Your task to perform on an android device: open a new tab in the chrome app Image 0: 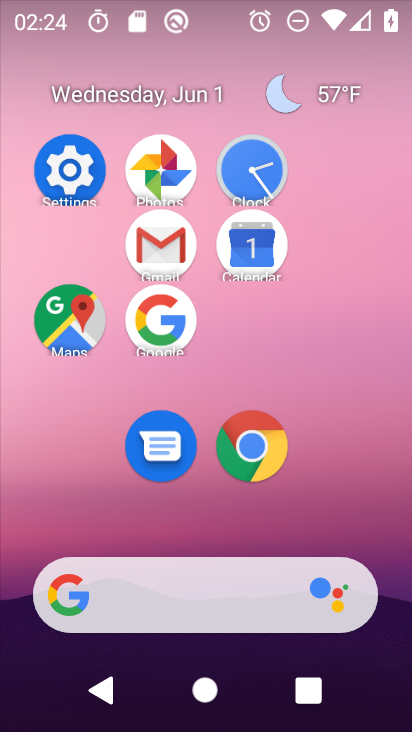
Step 0: click (280, 428)
Your task to perform on an android device: open a new tab in the chrome app Image 1: 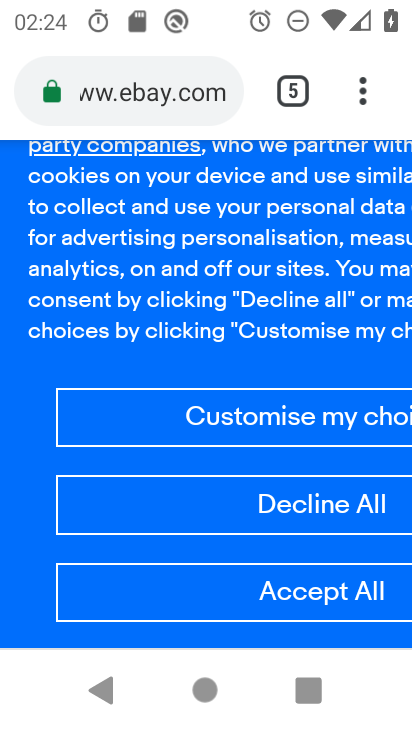
Step 1: click (300, 94)
Your task to perform on an android device: open a new tab in the chrome app Image 2: 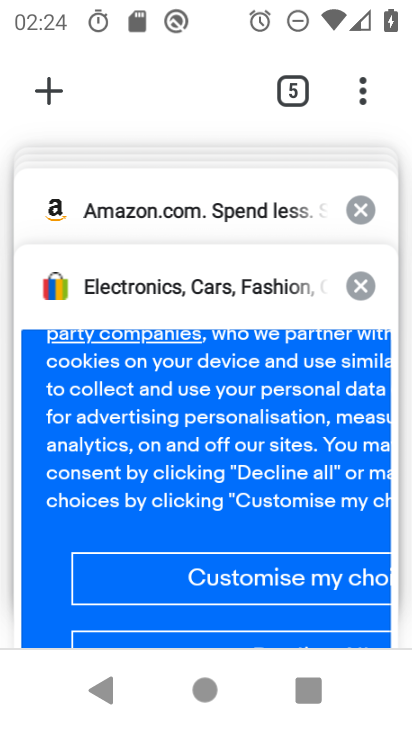
Step 2: click (66, 92)
Your task to perform on an android device: open a new tab in the chrome app Image 3: 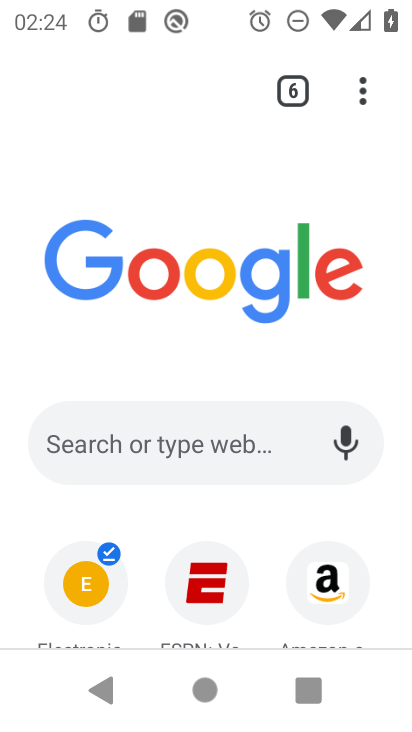
Step 3: task complete